Your task to perform on an android device: toggle notification dots Image 0: 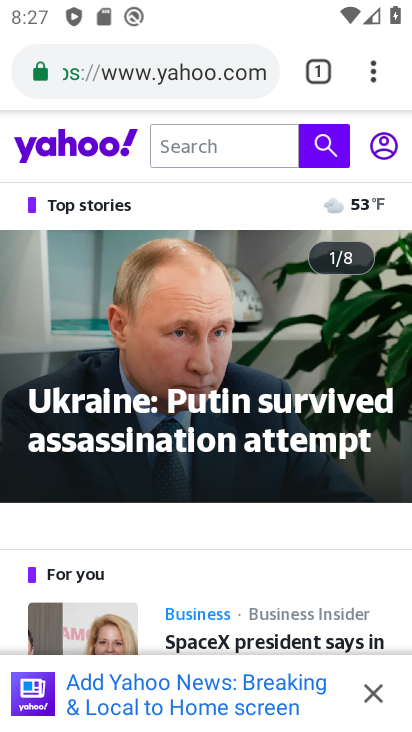
Step 0: press home button
Your task to perform on an android device: toggle notification dots Image 1: 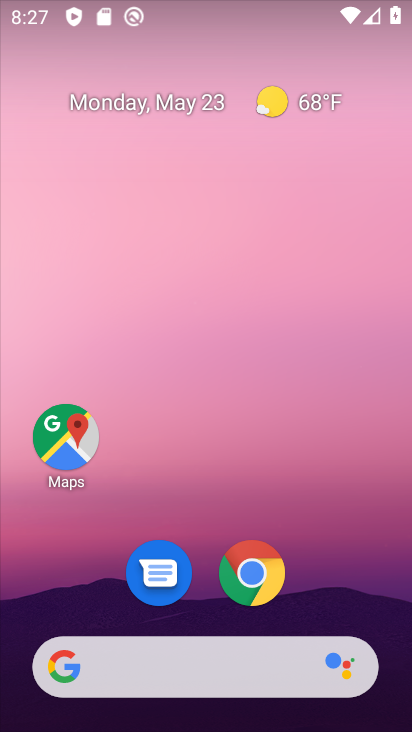
Step 1: drag from (203, 625) to (206, 154)
Your task to perform on an android device: toggle notification dots Image 2: 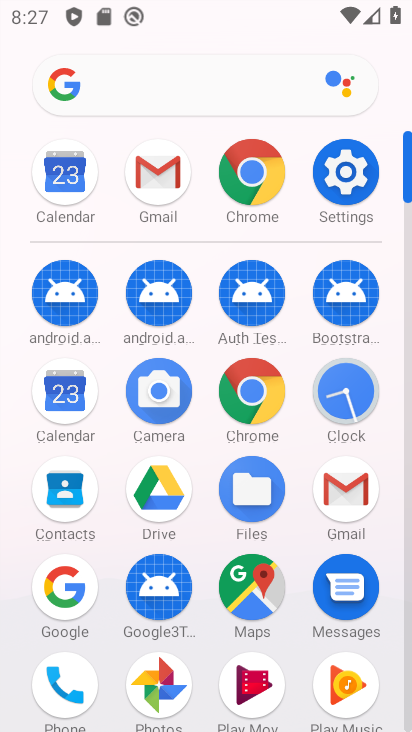
Step 2: click (343, 171)
Your task to perform on an android device: toggle notification dots Image 3: 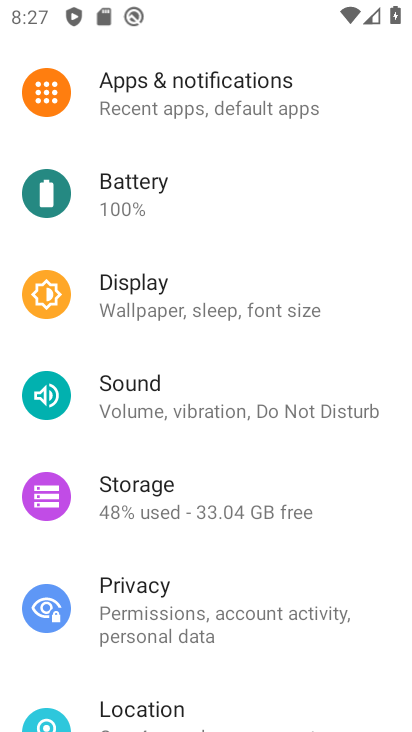
Step 3: click (195, 98)
Your task to perform on an android device: toggle notification dots Image 4: 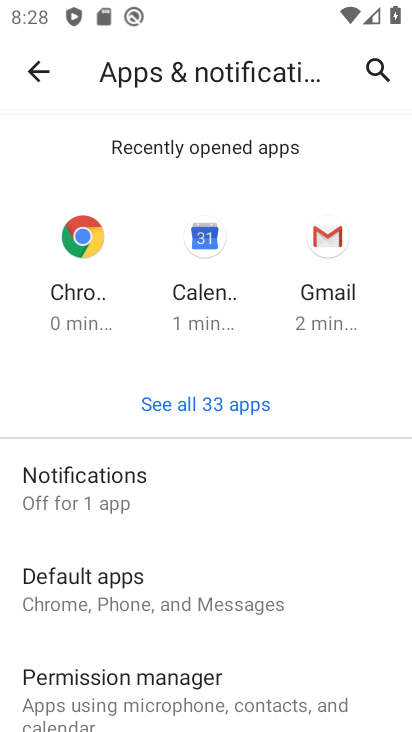
Step 4: click (142, 491)
Your task to perform on an android device: toggle notification dots Image 5: 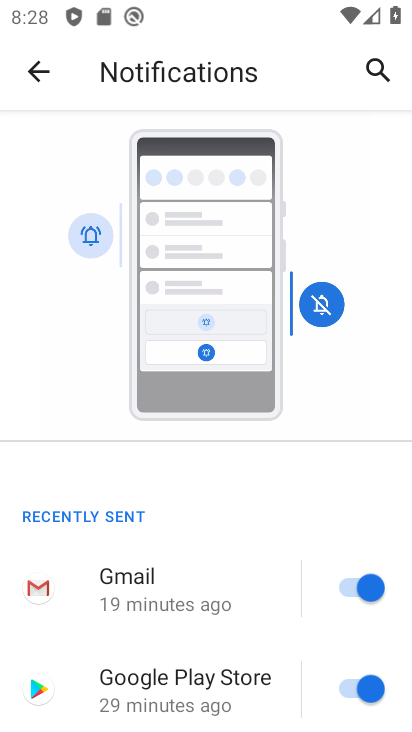
Step 5: drag from (265, 667) to (252, 256)
Your task to perform on an android device: toggle notification dots Image 6: 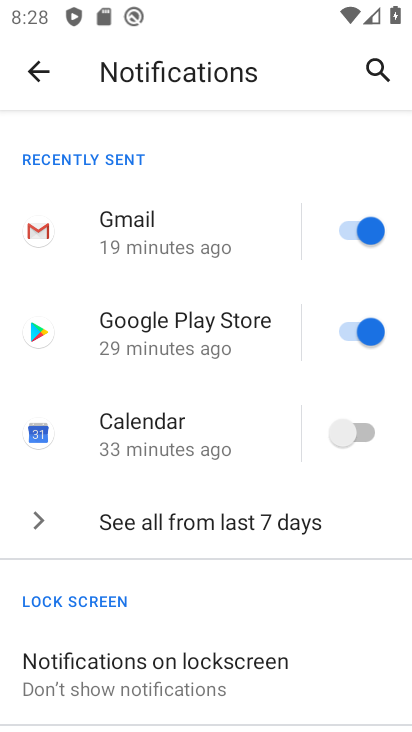
Step 6: drag from (248, 669) to (248, 201)
Your task to perform on an android device: toggle notification dots Image 7: 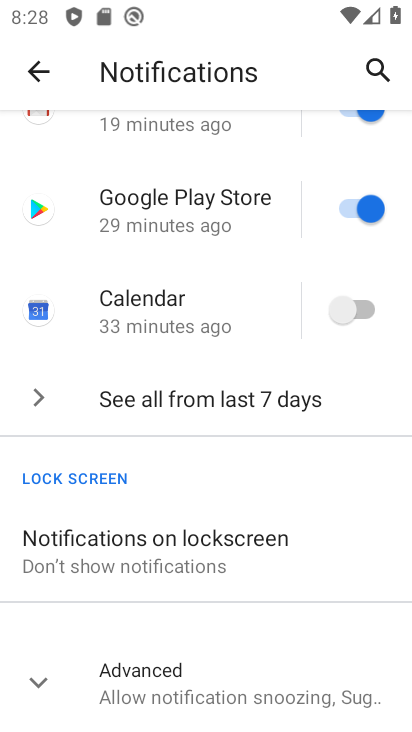
Step 7: click (44, 692)
Your task to perform on an android device: toggle notification dots Image 8: 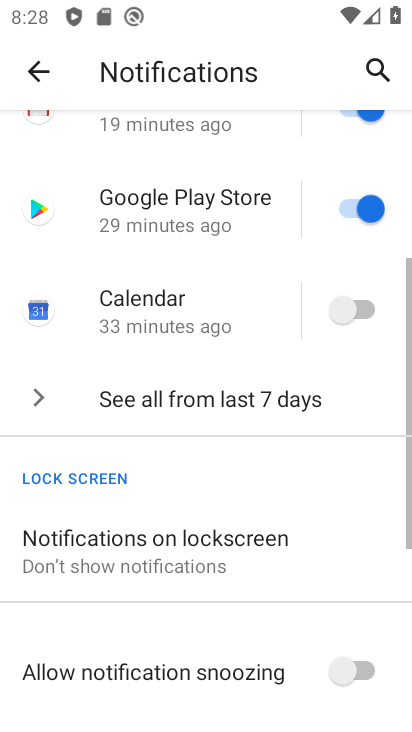
Step 8: drag from (158, 648) to (242, 160)
Your task to perform on an android device: toggle notification dots Image 9: 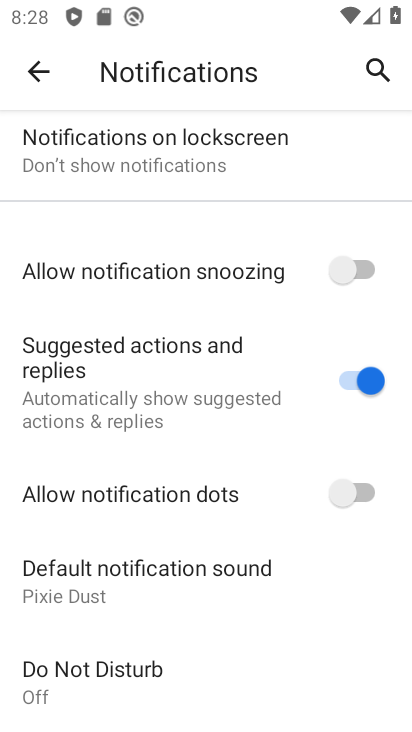
Step 9: click (356, 488)
Your task to perform on an android device: toggle notification dots Image 10: 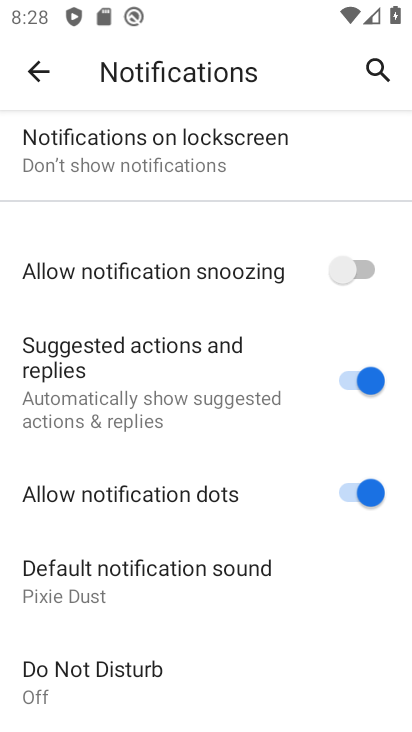
Step 10: task complete